Your task to perform on an android device: Play the last video I watched on Youtube Image 0: 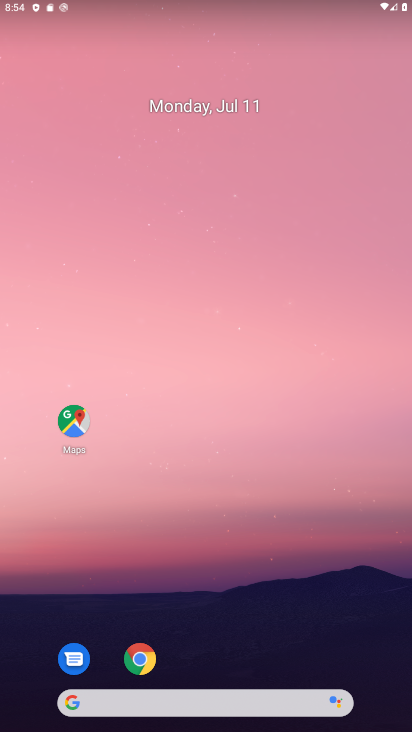
Step 0: drag from (208, 717) to (201, 83)
Your task to perform on an android device: Play the last video I watched on Youtube Image 1: 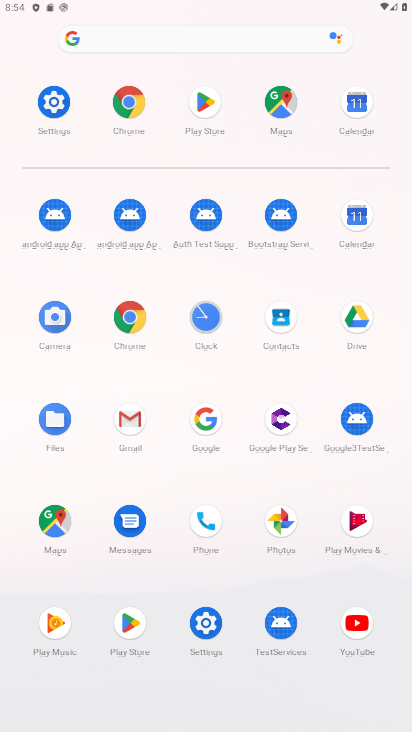
Step 1: click (351, 617)
Your task to perform on an android device: Play the last video I watched on Youtube Image 2: 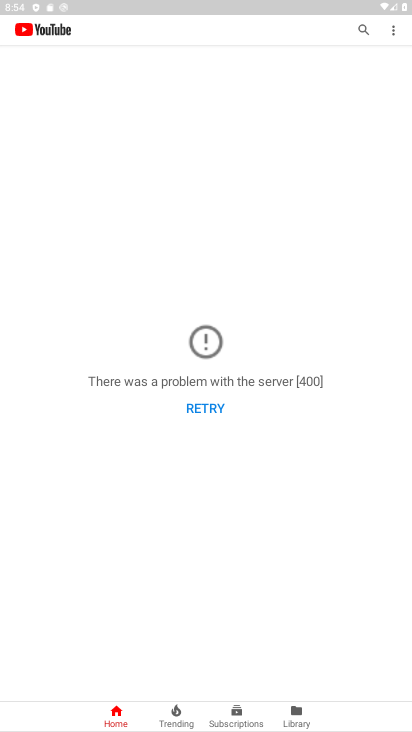
Step 2: click (298, 703)
Your task to perform on an android device: Play the last video I watched on Youtube Image 3: 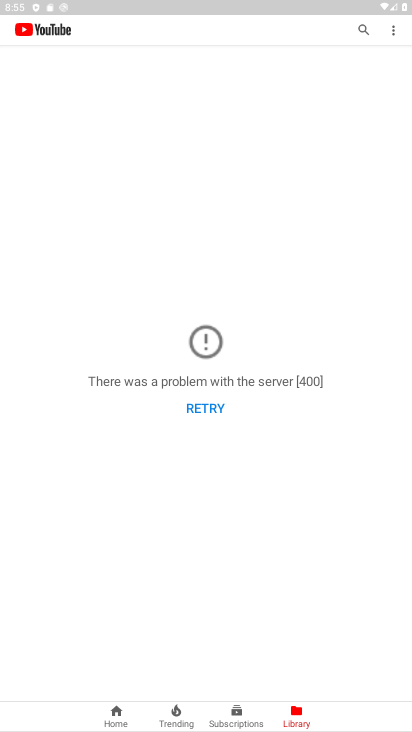
Step 3: task complete